Your task to perform on an android device: turn on translation in the chrome app Image 0: 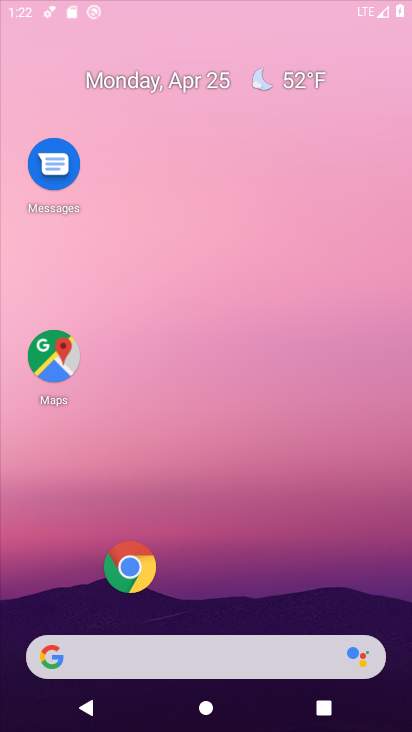
Step 0: click (140, 586)
Your task to perform on an android device: turn on translation in the chrome app Image 1: 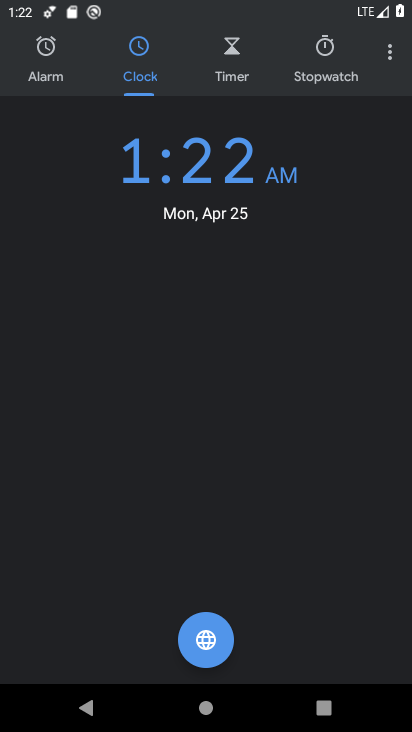
Step 1: press home button
Your task to perform on an android device: turn on translation in the chrome app Image 2: 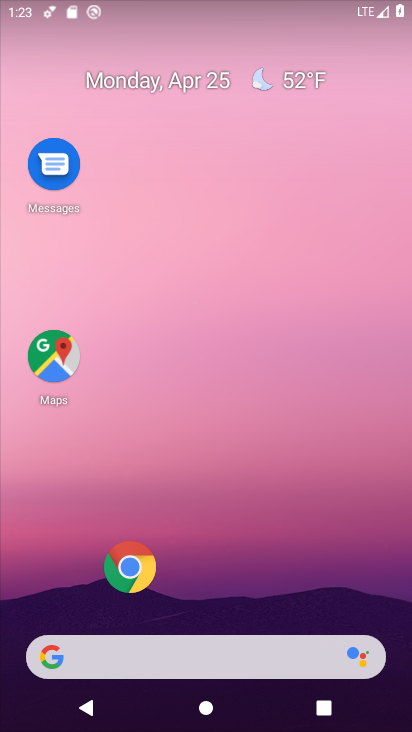
Step 2: click (138, 567)
Your task to perform on an android device: turn on translation in the chrome app Image 3: 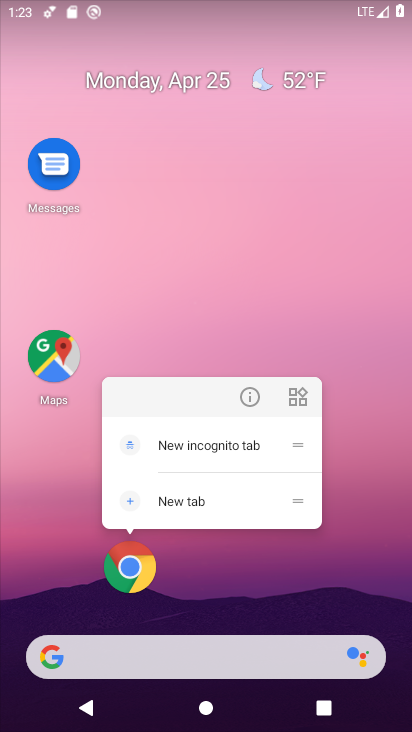
Step 3: click (138, 567)
Your task to perform on an android device: turn on translation in the chrome app Image 4: 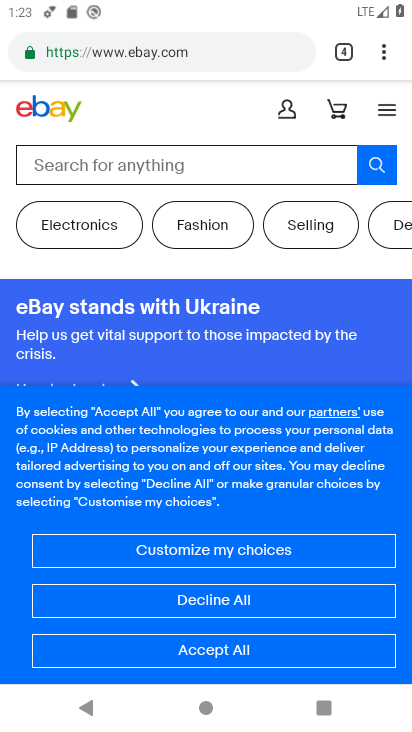
Step 4: click (379, 46)
Your task to perform on an android device: turn on translation in the chrome app Image 5: 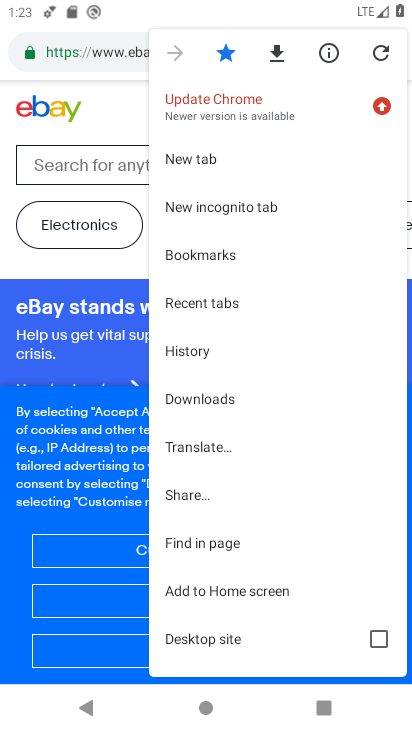
Step 5: drag from (228, 577) to (251, 258)
Your task to perform on an android device: turn on translation in the chrome app Image 6: 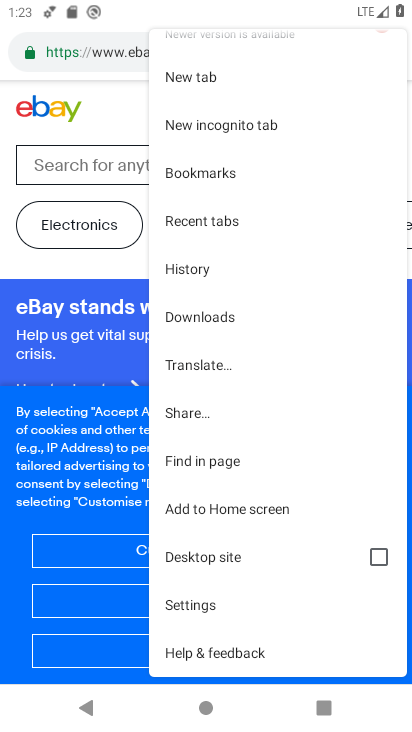
Step 6: click (204, 605)
Your task to perform on an android device: turn on translation in the chrome app Image 7: 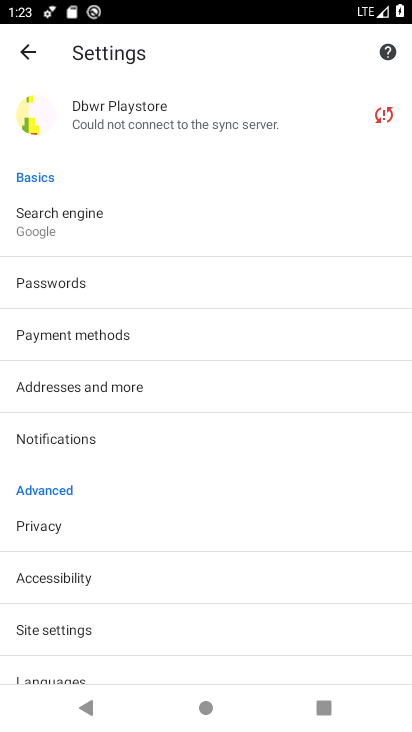
Step 7: task complete